Your task to perform on an android device: uninstall "Google Find My Device" Image 0: 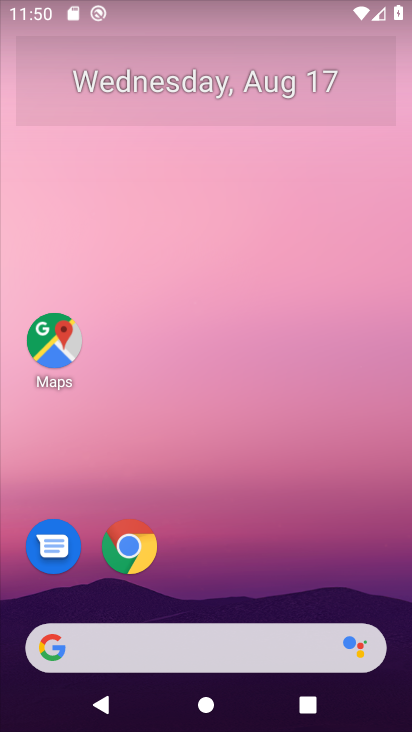
Step 0: drag from (179, 634) to (375, 295)
Your task to perform on an android device: uninstall "Google Find My Device" Image 1: 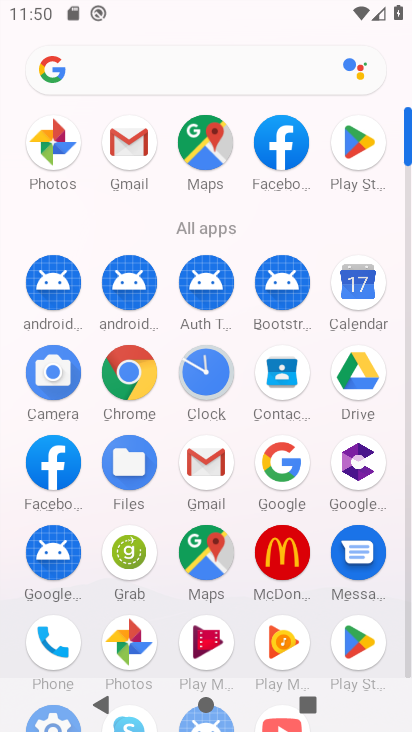
Step 1: click (364, 634)
Your task to perform on an android device: uninstall "Google Find My Device" Image 2: 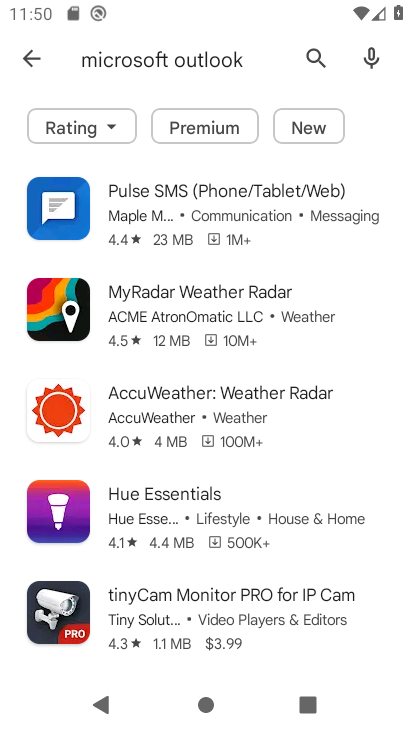
Step 2: click (314, 54)
Your task to perform on an android device: uninstall "Google Find My Device" Image 3: 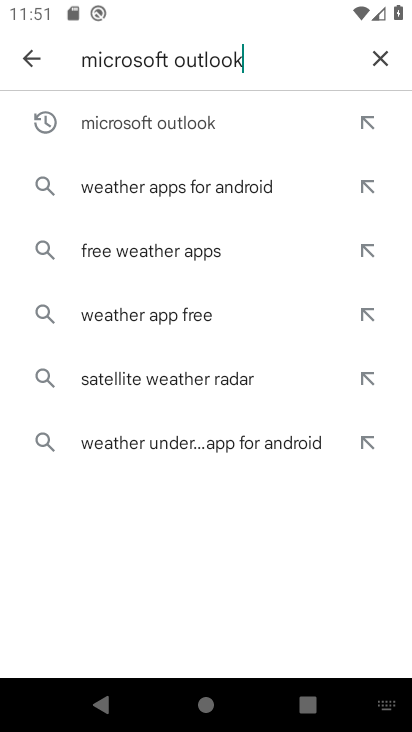
Step 3: click (379, 56)
Your task to perform on an android device: uninstall "Google Find My Device" Image 4: 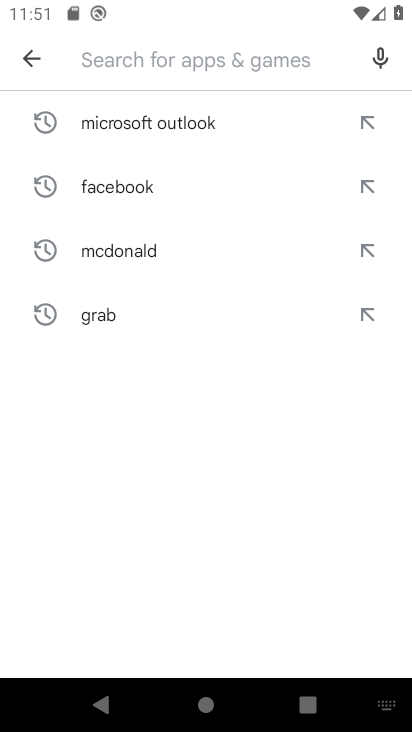
Step 4: type "Google Find My Device"
Your task to perform on an android device: uninstall "Google Find My Device" Image 5: 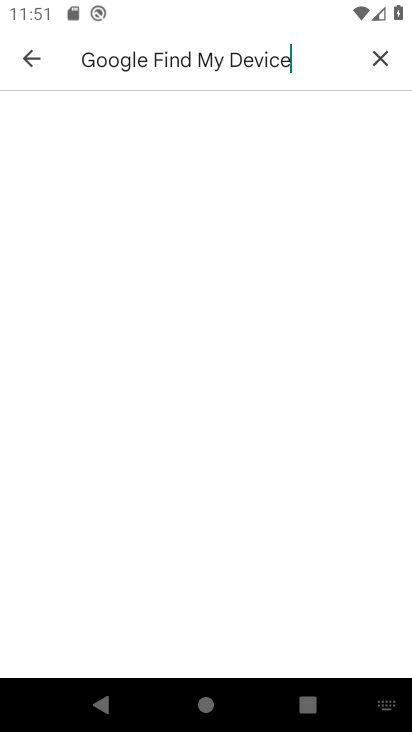
Step 5: press enter
Your task to perform on an android device: uninstall "Google Find My Device" Image 6: 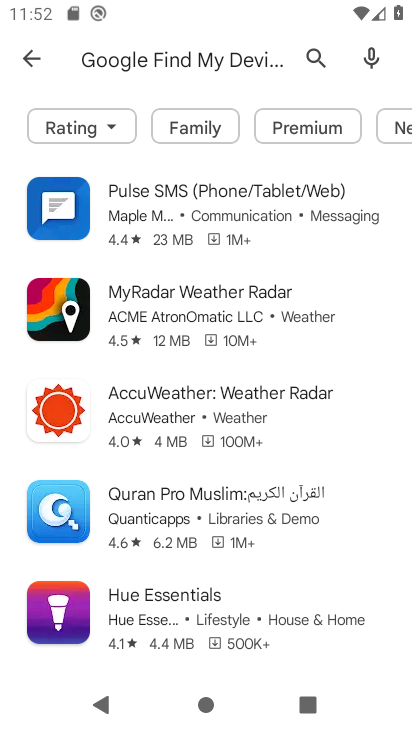
Step 6: task complete